Your task to perform on an android device: Open the calendar and show me this week's events? Image 0: 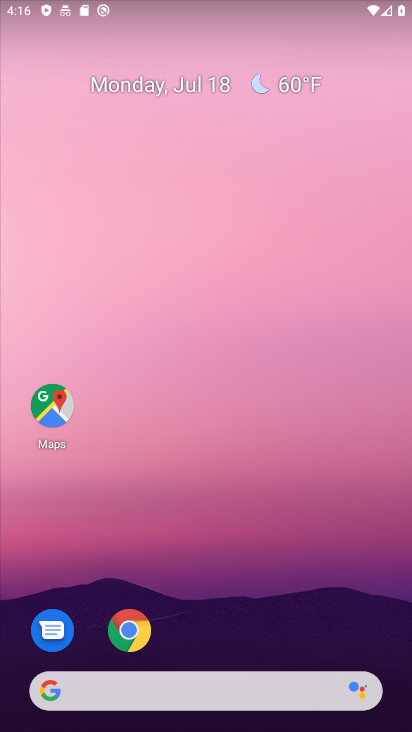
Step 0: drag from (204, 606) to (109, 75)
Your task to perform on an android device: Open the calendar and show me this week's events? Image 1: 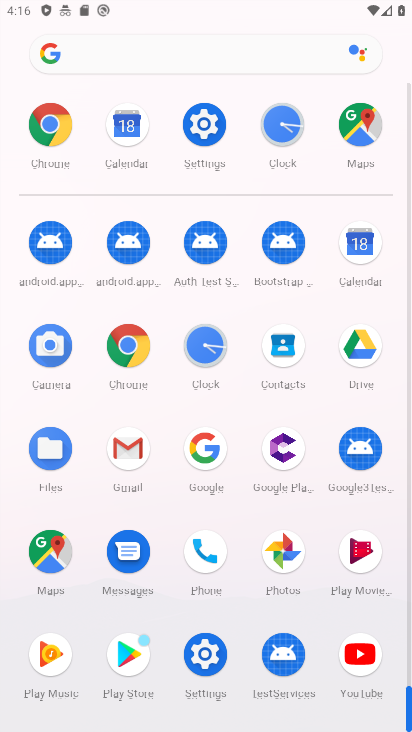
Step 1: click (354, 245)
Your task to perform on an android device: Open the calendar and show me this week's events? Image 2: 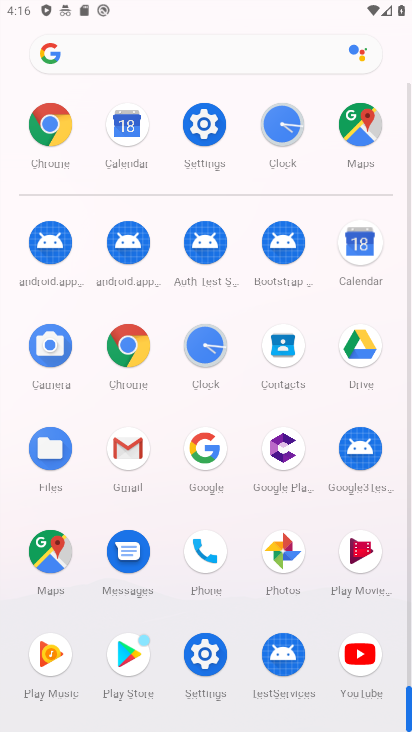
Step 2: click (357, 234)
Your task to perform on an android device: Open the calendar and show me this week's events? Image 3: 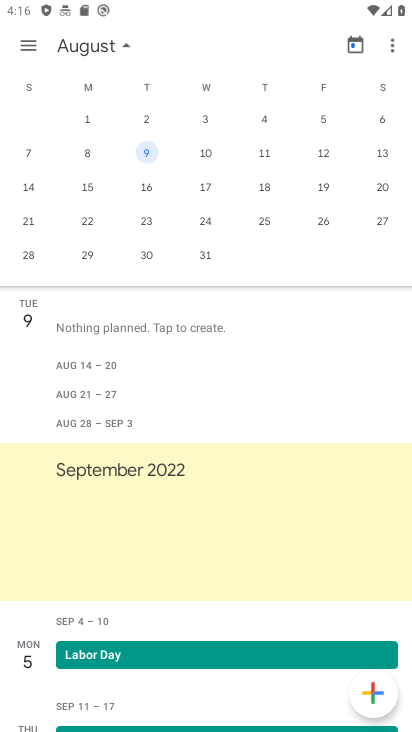
Step 3: click (375, 154)
Your task to perform on an android device: Open the calendar and show me this week's events? Image 4: 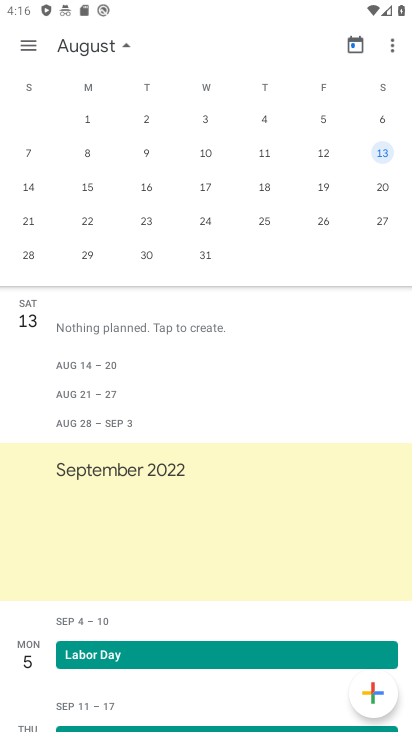
Step 4: click (376, 155)
Your task to perform on an android device: Open the calendar and show me this week's events? Image 5: 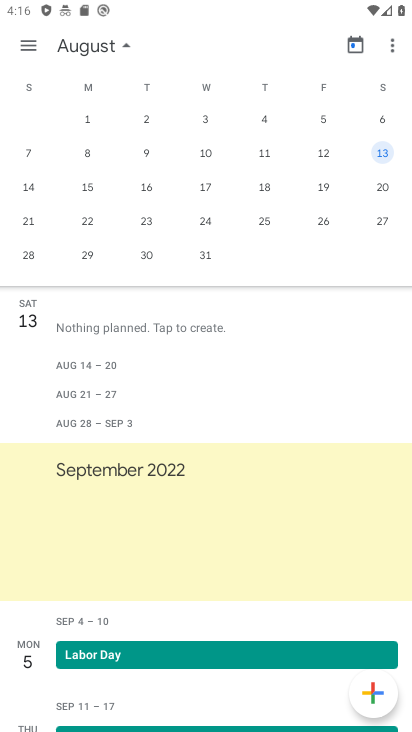
Step 5: click (376, 155)
Your task to perform on an android device: Open the calendar and show me this week's events? Image 6: 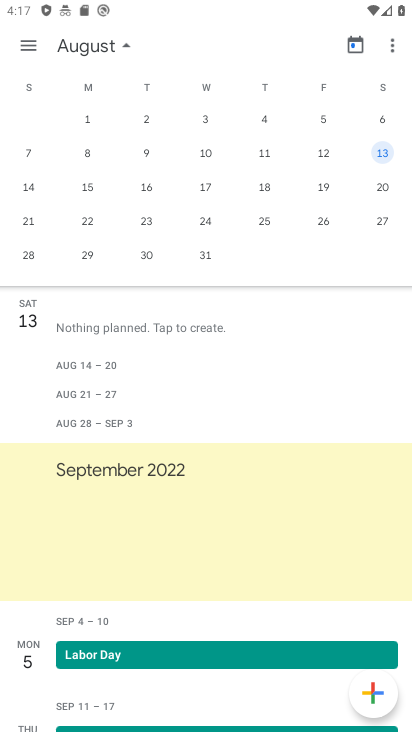
Step 6: click (326, 185)
Your task to perform on an android device: Open the calendar and show me this week's events? Image 7: 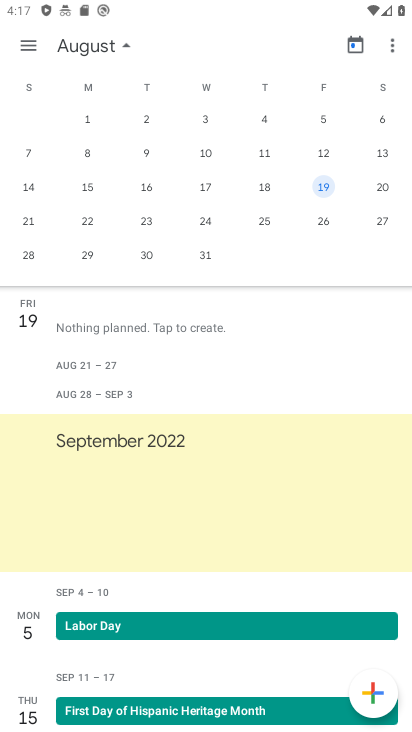
Step 7: click (326, 185)
Your task to perform on an android device: Open the calendar and show me this week's events? Image 8: 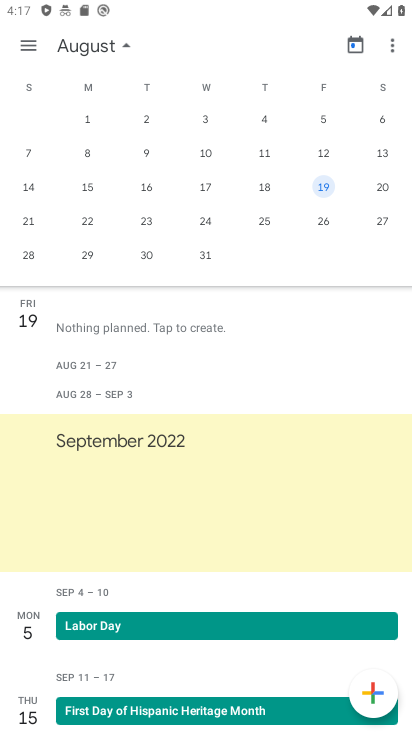
Step 8: click (326, 185)
Your task to perform on an android device: Open the calendar and show me this week's events? Image 9: 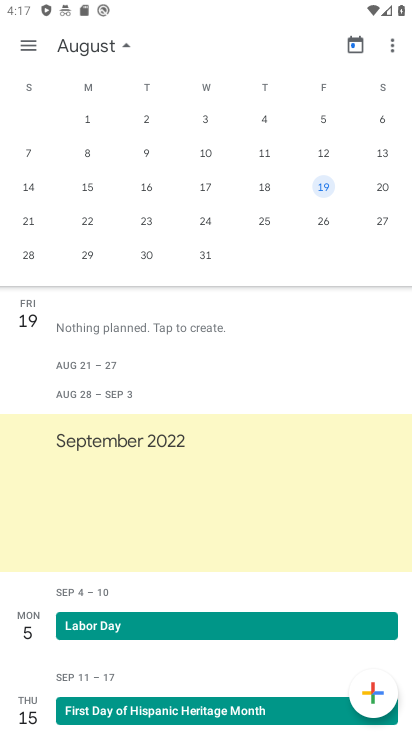
Step 9: click (326, 185)
Your task to perform on an android device: Open the calendar and show me this week's events? Image 10: 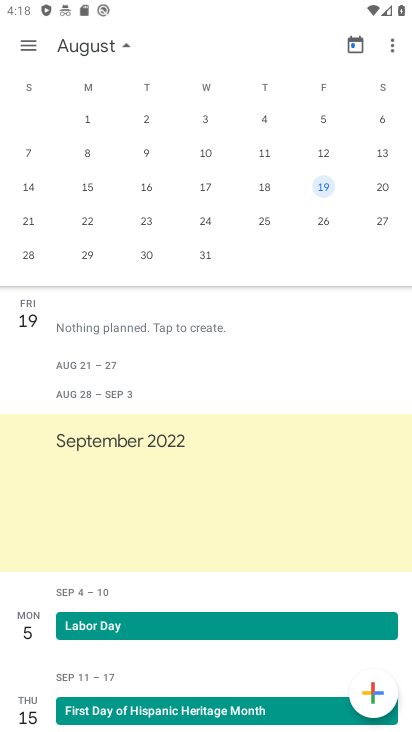
Step 10: press back button
Your task to perform on an android device: Open the calendar and show me this week's events? Image 11: 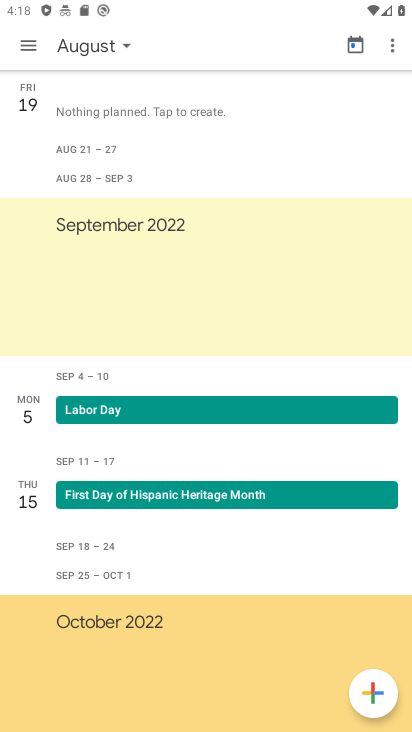
Step 11: press home button
Your task to perform on an android device: Open the calendar and show me this week's events? Image 12: 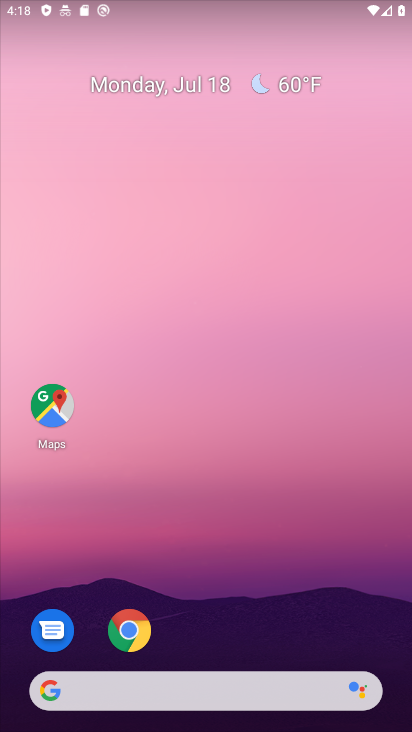
Step 12: drag from (181, 554) to (45, 155)
Your task to perform on an android device: Open the calendar and show me this week's events? Image 13: 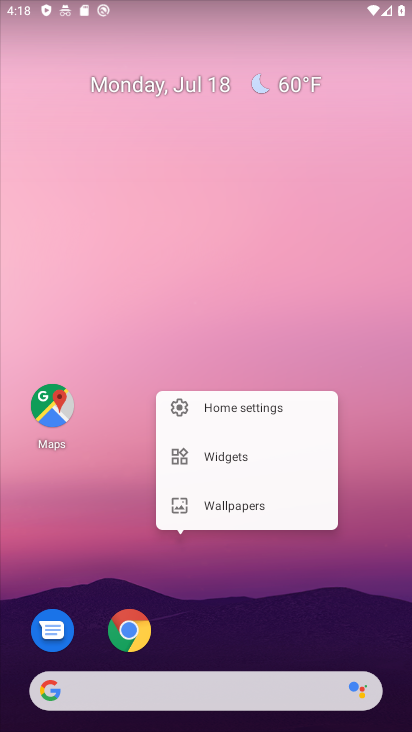
Step 13: drag from (193, 464) to (153, 13)
Your task to perform on an android device: Open the calendar and show me this week's events? Image 14: 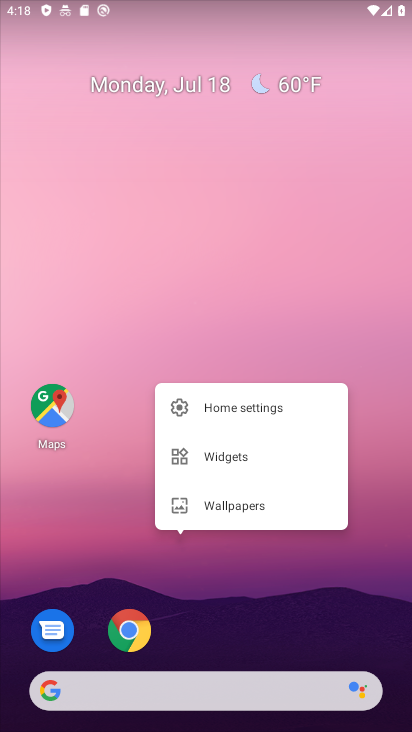
Step 14: drag from (177, 444) to (105, 80)
Your task to perform on an android device: Open the calendar and show me this week's events? Image 15: 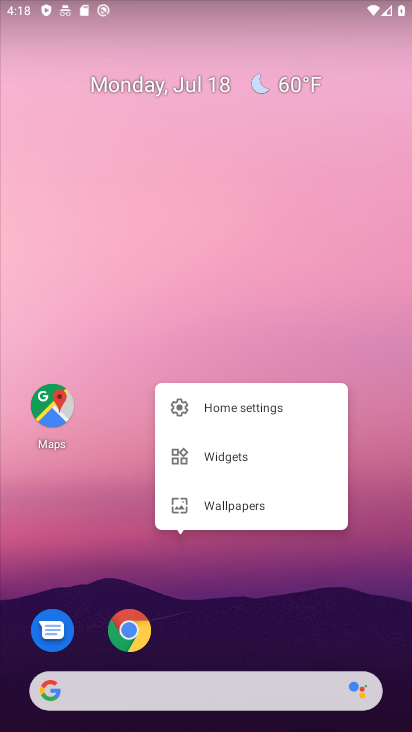
Step 15: drag from (200, 535) to (90, 130)
Your task to perform on an android device: Open the calendar and show me this week's events? Image 16: 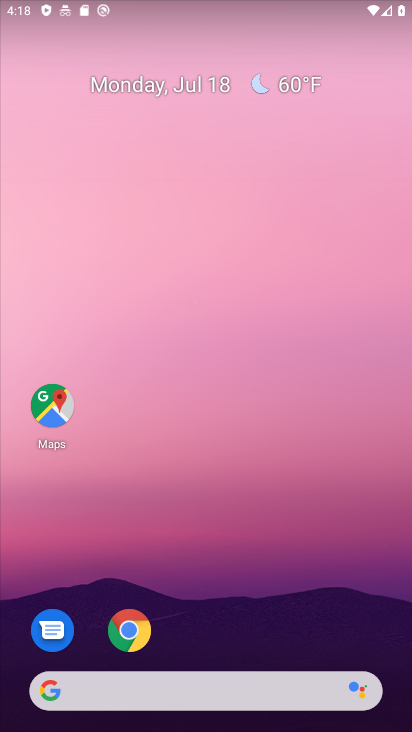
Step 16: click (116, 242)
Your task to perform on an android device: Open the calendar and show me this week's events? Image 17: 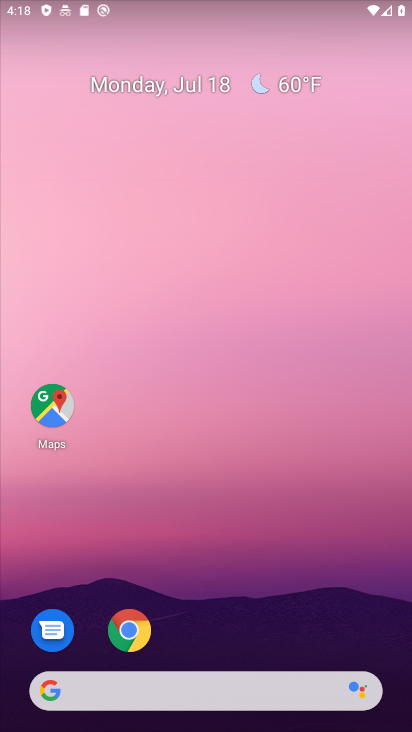
Step 17: click (167, 57)
Your task to perform on an android device: Open the calendar and show me this week's events? Image 18: 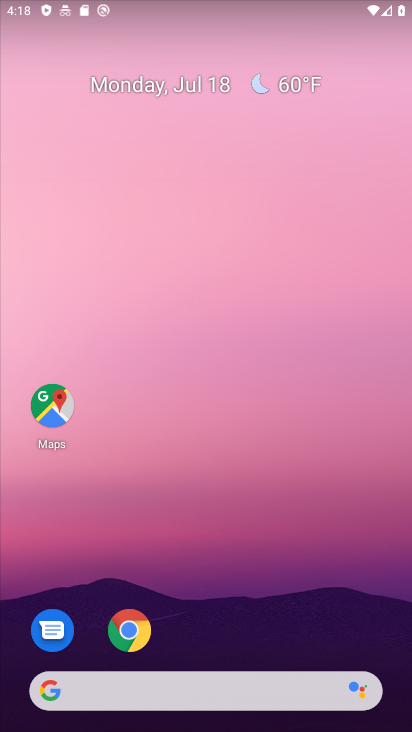
Step 18: drag from (246, 552) to (196, 219)
Your task to perform on an android device: Open the calendar and show me this week's events? Image 19: 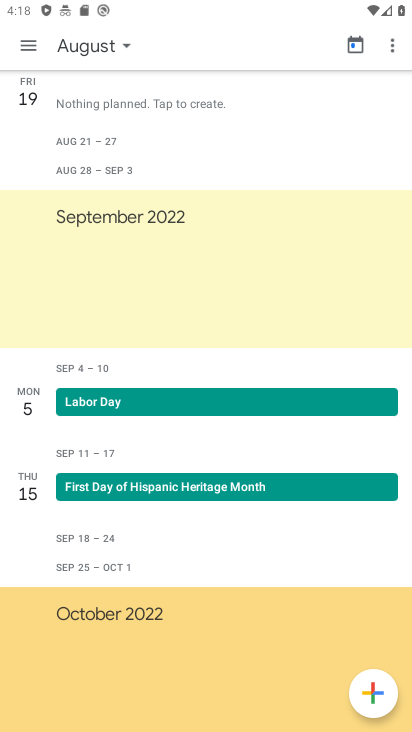
Step 19: click (149, 93)
Your task to perform on an android device: Open the calendar and show me this week's events? Image 20: 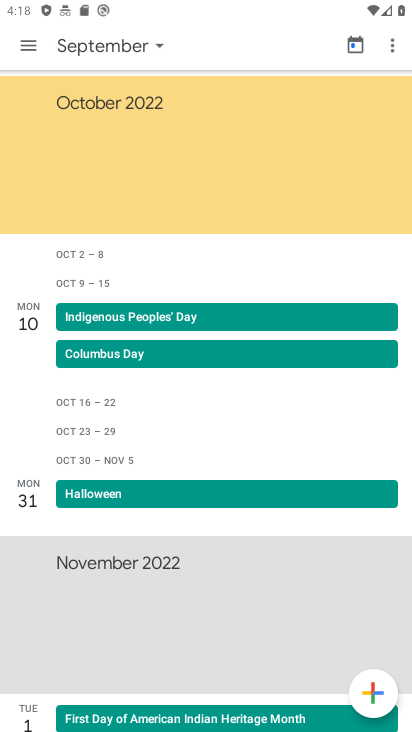
Step 20: press back button
Your task to perform on an android device: Open the calendar and show me this week's events? Image 21: 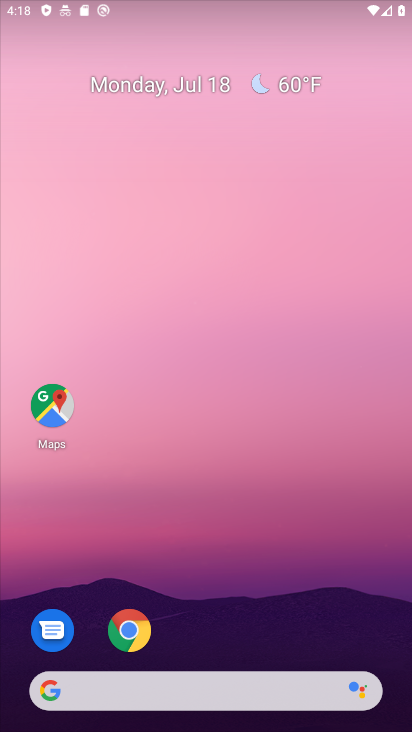
Step 21: drag from (187, 609) to (137, 85)
Your task to perform on an android device: Open the calendar and show me this week's events? Image 22: 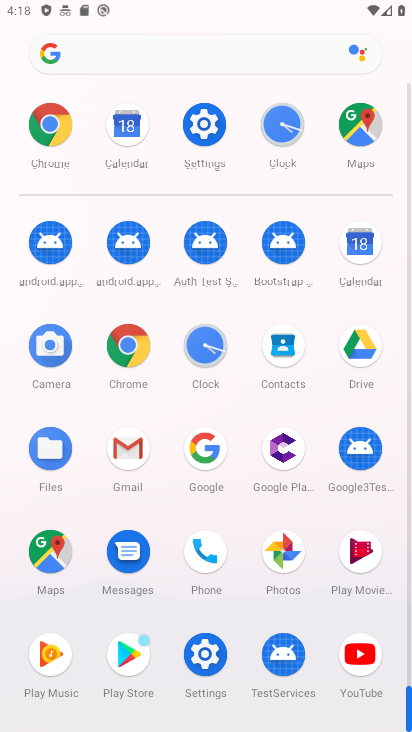
Step 22: drag from (132, 502) to (55, 172)
Your task to perform on an android device: Open the calendar and show me this week's events? Image 23: 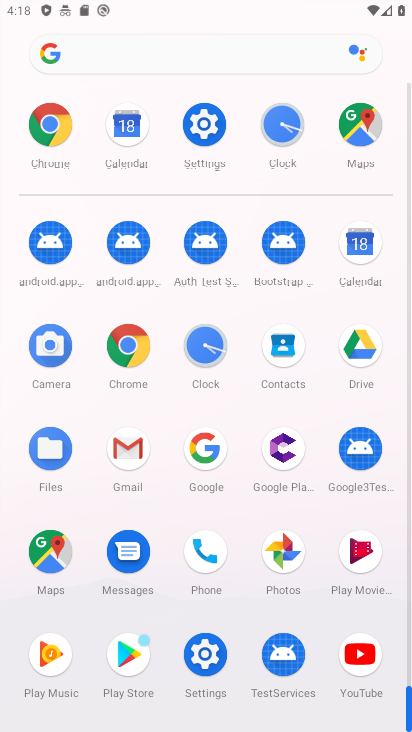
Step 23: click (349, 233)
Your task to perform on an android device: Open the calendar and show me this week's events? Image 24: 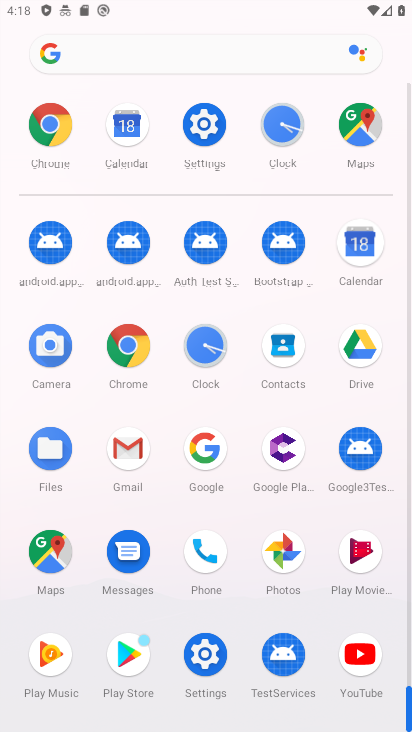
Step 24: click (350, 232)
Your task to perform on an android device: Open the calendar and show me this week's events? Image 25: 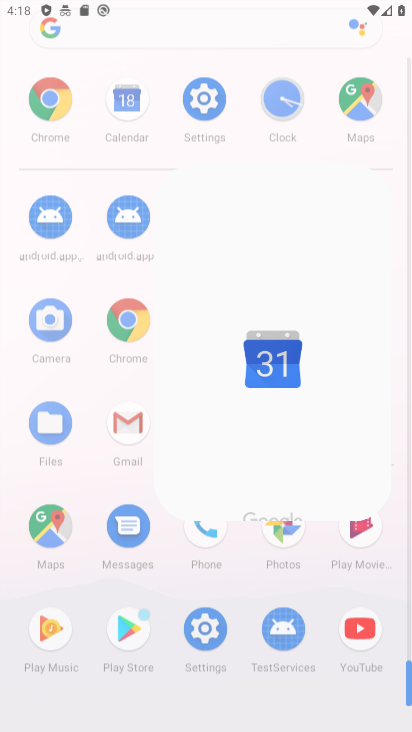
Step 25: click (363, 235)
Your task to perform on an android device: Open the calendar and show me this week's events? Image 26: 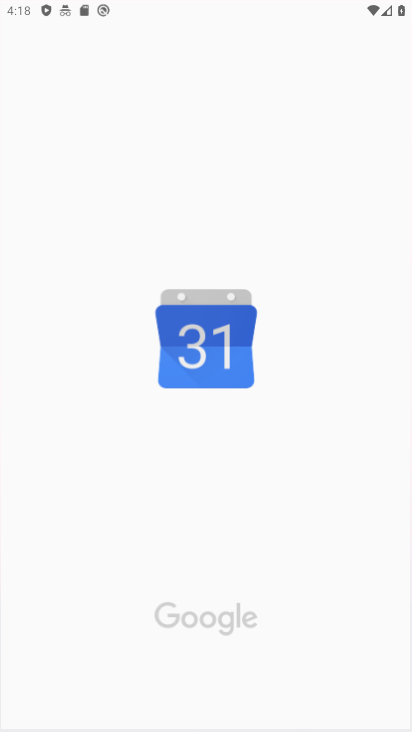
Step 26: click (368, 237)
Your task to perform on an android device: Open the calendar and show me this week's events? Image 27: 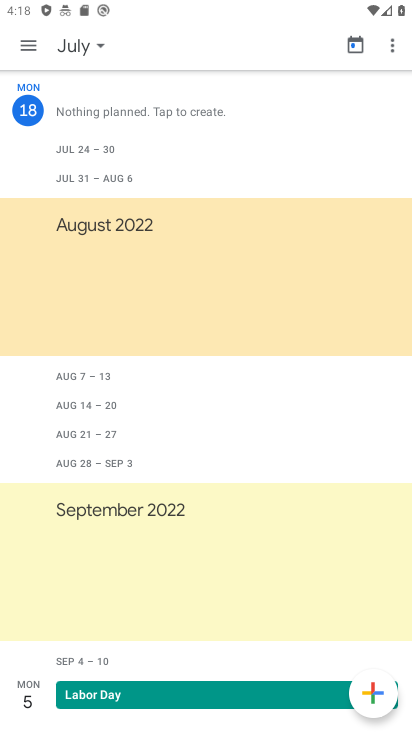
Step 27: click (371, 239)
Your task to perform on an android device: Open the calendar and show me this week's events? Image 28: 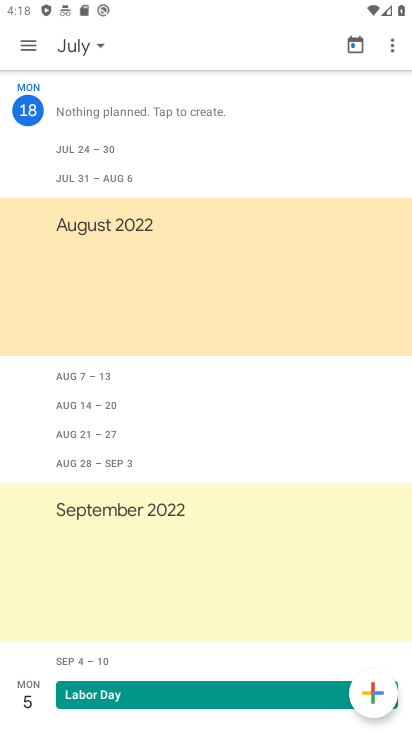
Step 28: click (100, 53)
Your task to perform on an android device: Open the calendar and show me this week's events? Image 29: 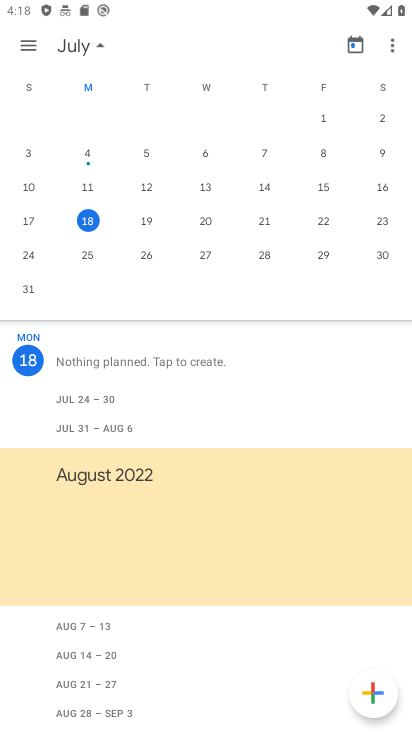
Step 29: click (323, 224)
Your task to perform on an android device: Open the calendar and show me this week's events? Image 30: 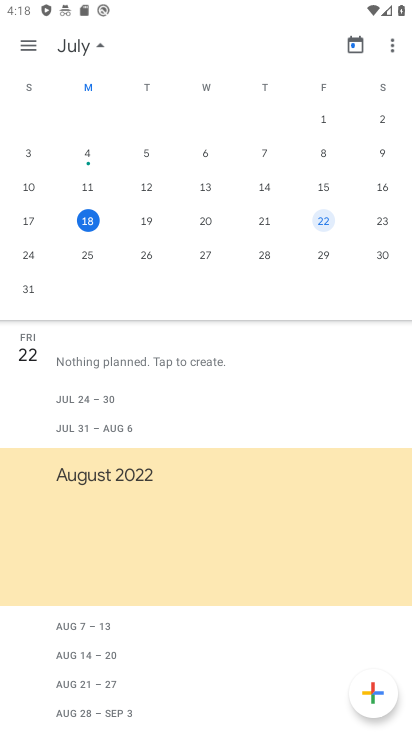
Step 30: click (317, 218)
Your task to perform on an android device: Open the calendar and show me this week's events? Image 31: 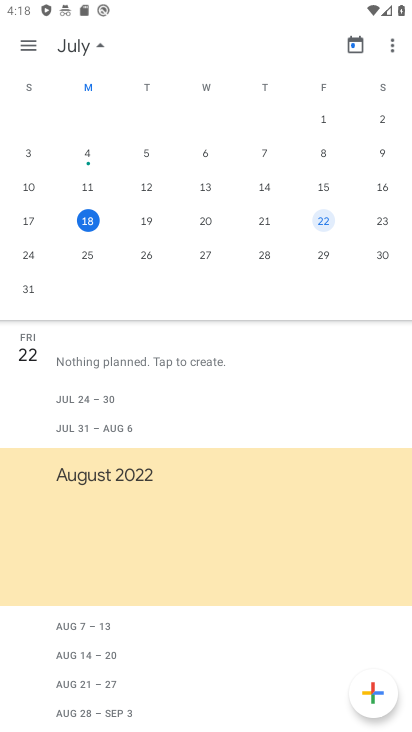
Step 31: click (319, 216)
Your task to perform on an android device: Open the calendar and show me this week's events? Image 32: 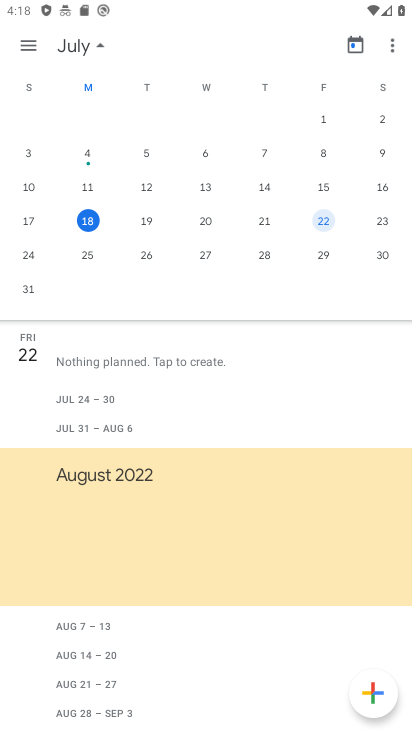
Step 32: click (322, 217)
Your task to perform on an android device: Open the calendar and show me this week's events? Image 33: 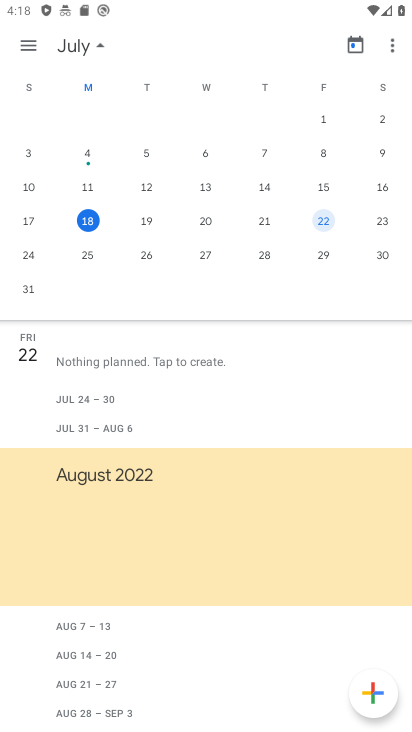
Step 33: task complete